Your task to perform on an android device: turn on bluetooth scan Image 0: 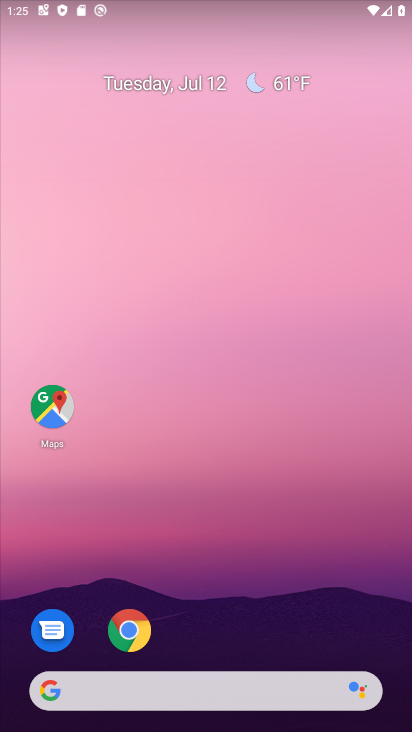
Step 0: drag from (253, 635) to (201, 185)
Your task to perform on an android device: turn on bluetooth scan Image 1: 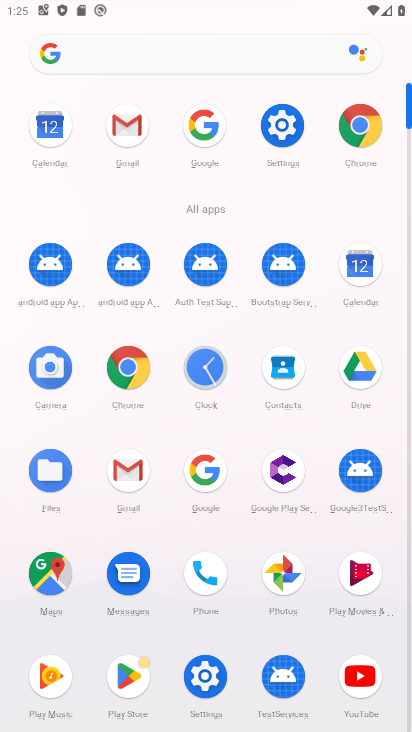
Step 1: click (292, 145)
Your task to perform on an android device: turn on bluetooth scan Image 2: 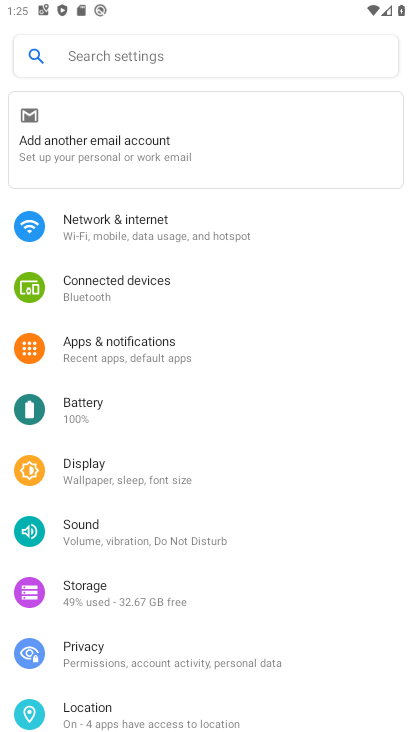
Step 2: click (191, 703)
Your task to perform on an android device: turn on bluetooth scan Image 3: 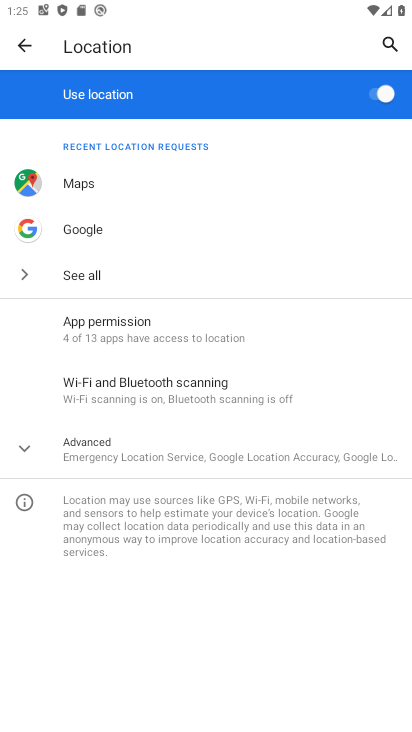
Step 3: click (165, 387)
Your task to perform on an android device: turn on bluetooth scan Image 4: 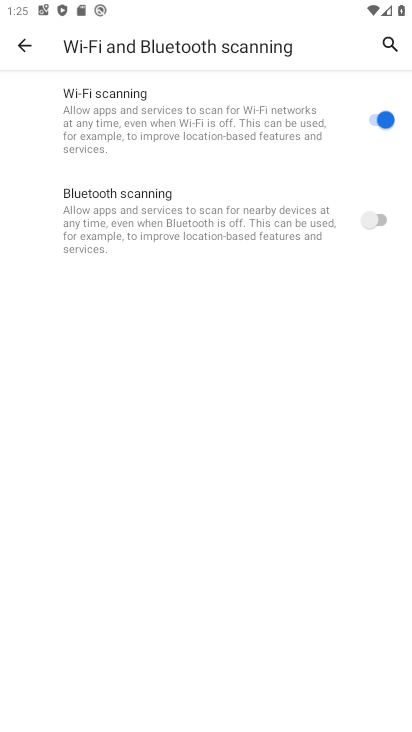
Step 4: click (378, 216)
Your task to perform on an android device: turn on bluetooth scan Image 5: 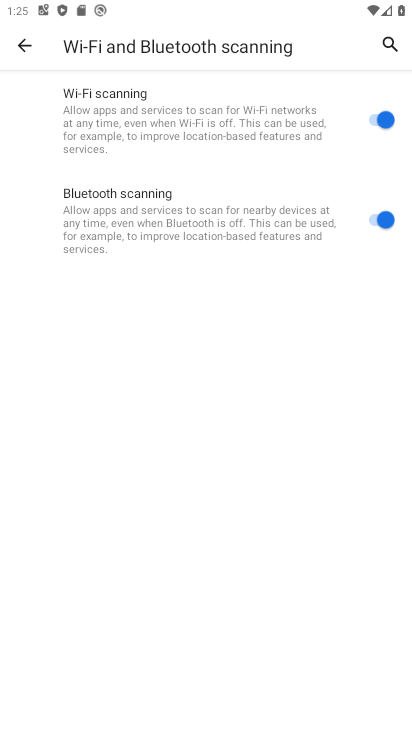
Step 5: task complete